Your task to perform on an android device: open app "Messages" Image 0: 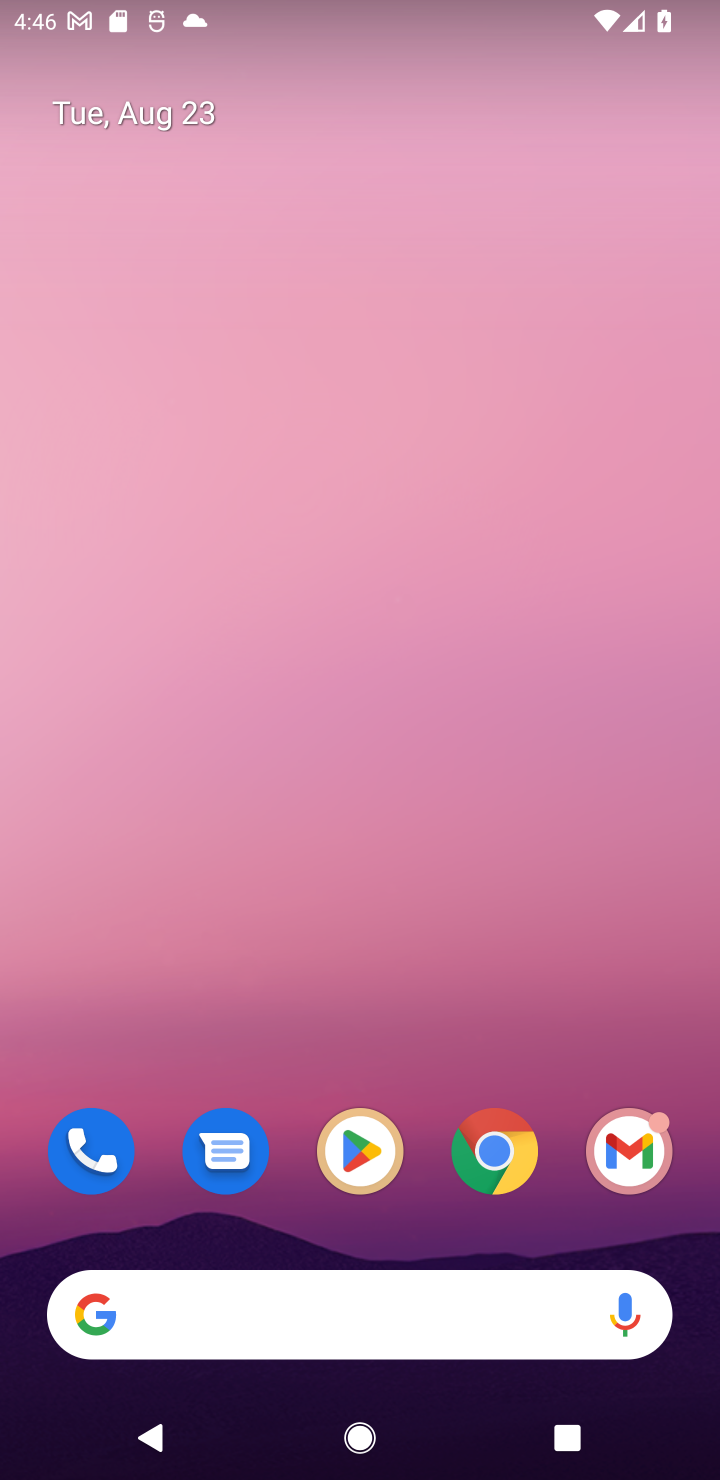
Step 0: click (351, 1138)
Your task to perform on an android device: open app "Messages" Image 1: 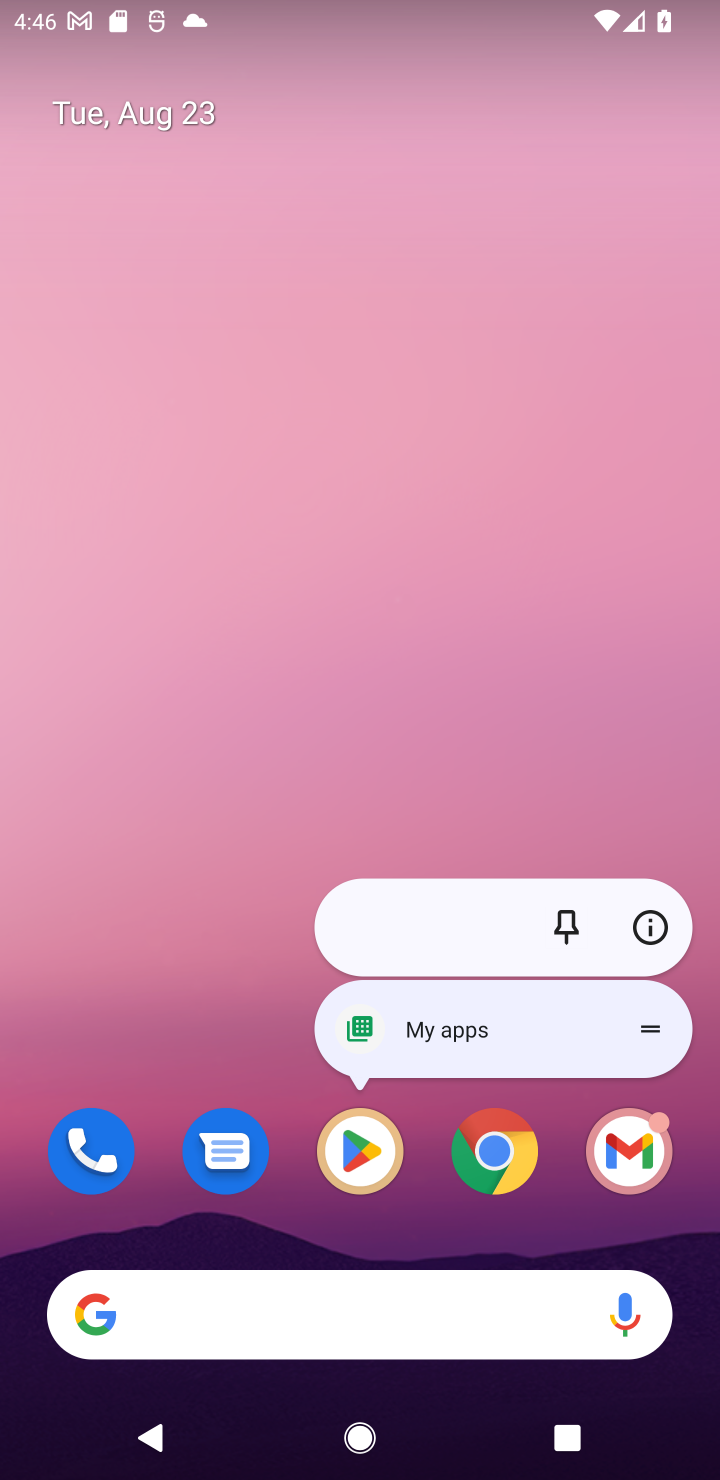
Step 1: click (355, 1142)
Your task to perform on an android device: open app "Messages" Image 2: 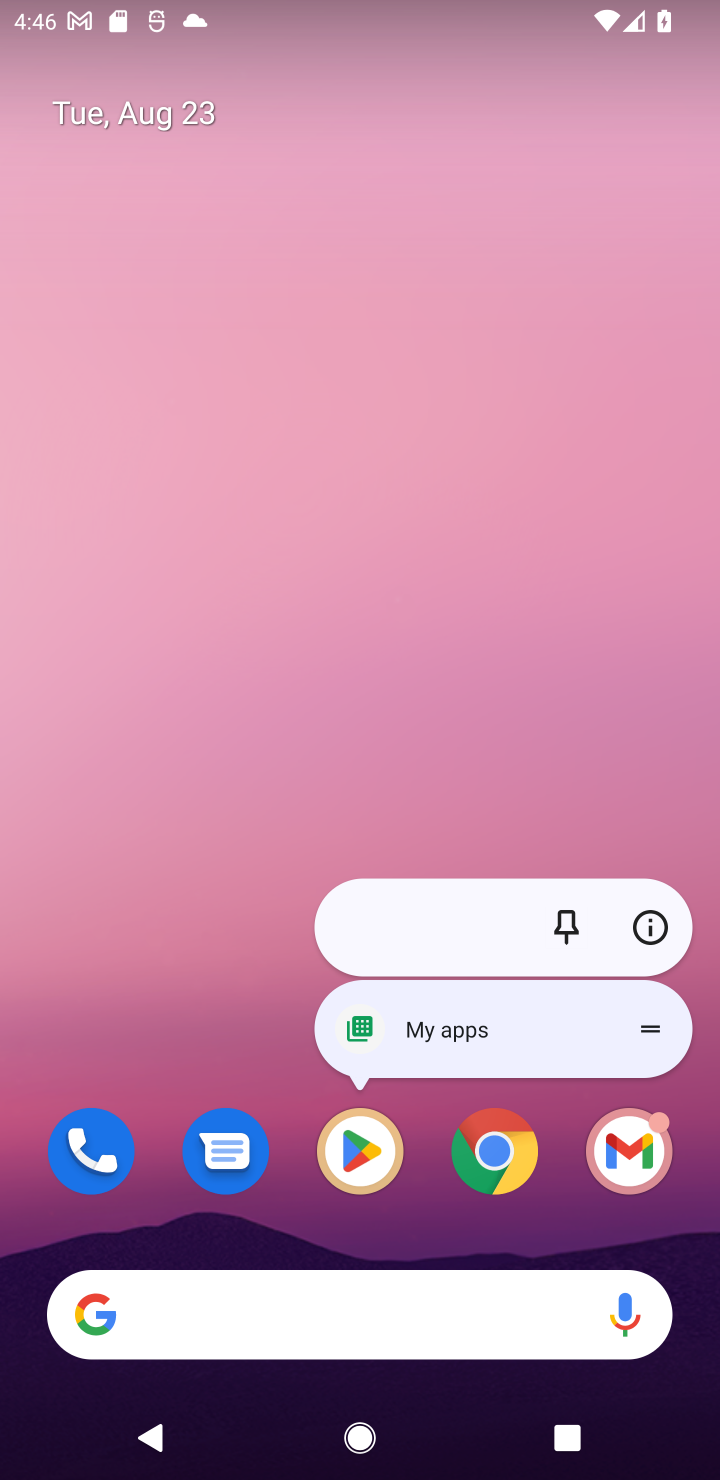
Step 2: click (355, 1146)
Your task to perform on an android device: open app "Messages" Image 3: 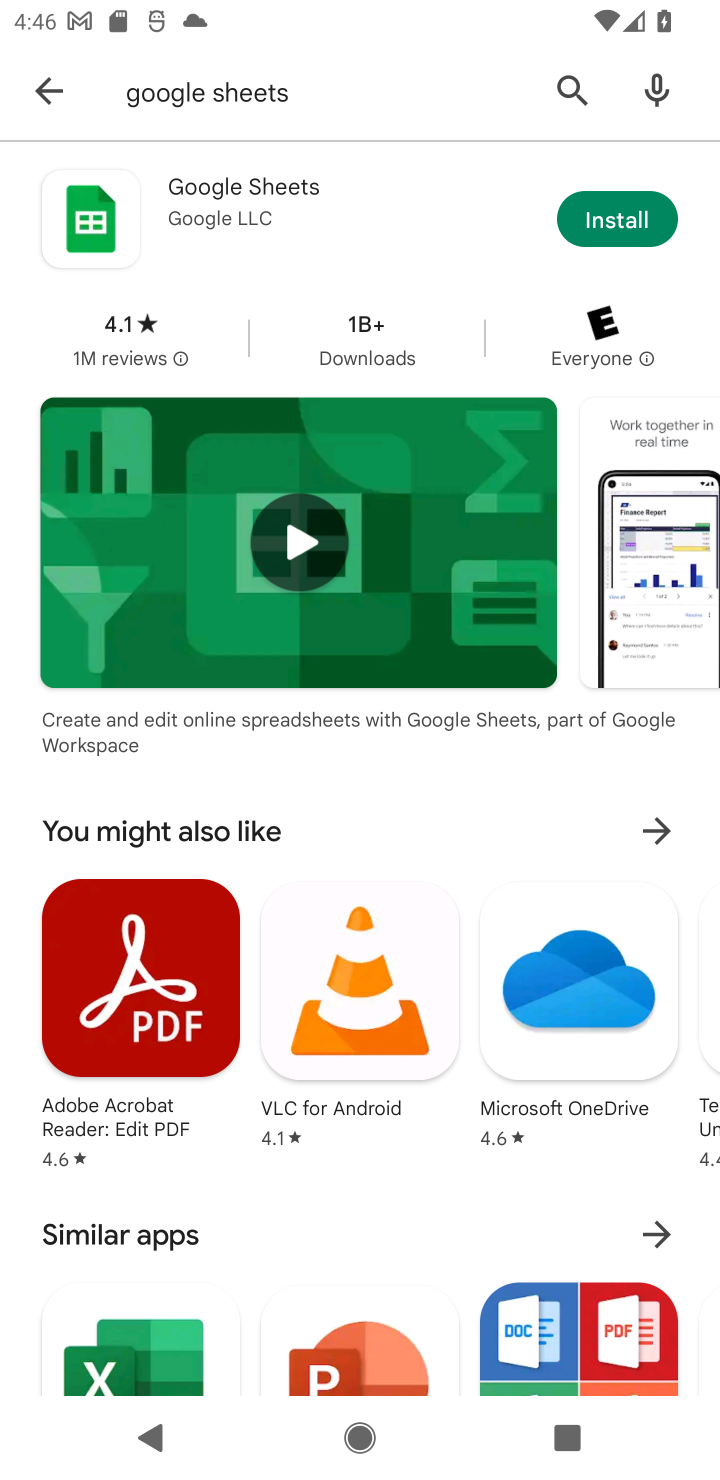
Step 3: click (576, 83)
Your task to perform on an android device: open app "Messages" Image 4: 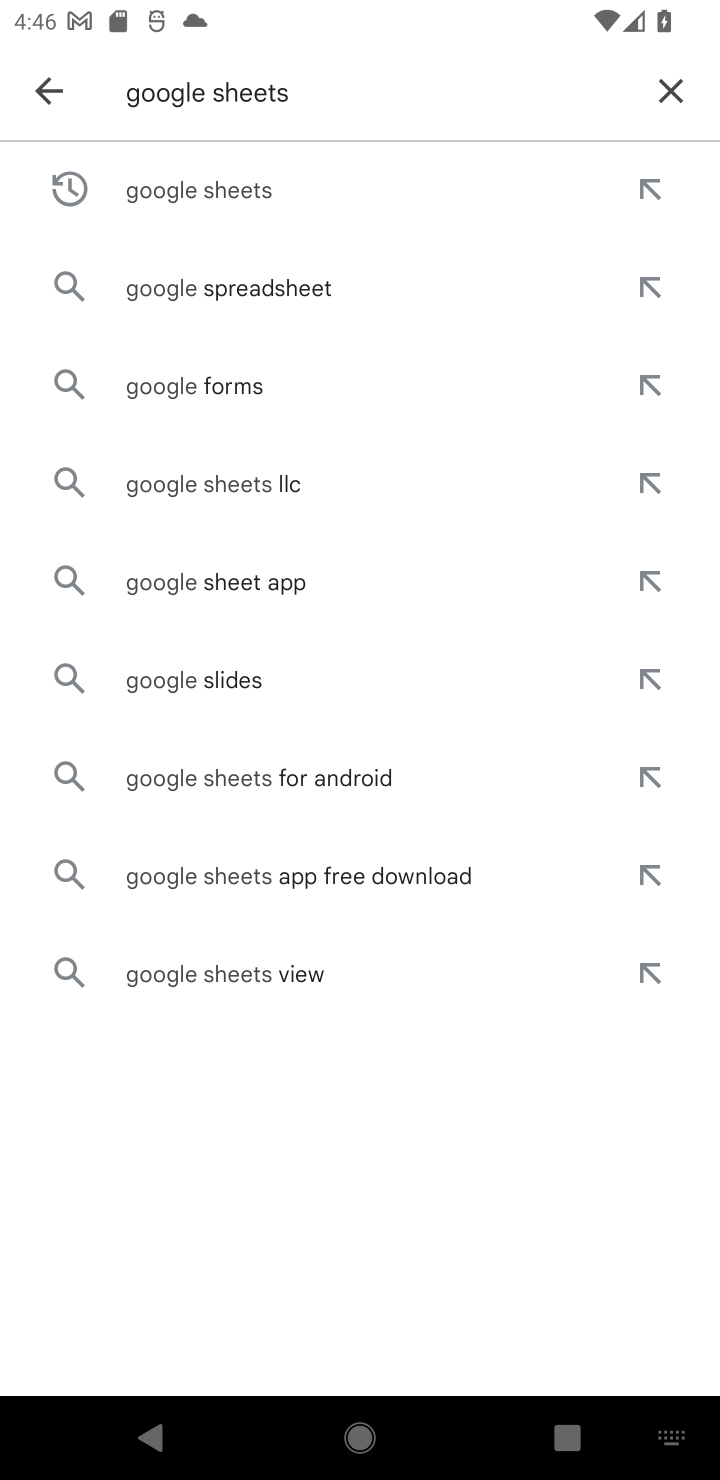
Step 4: click (672, 92)
Your task to perform on an android device: open app "Messages" Image 5: 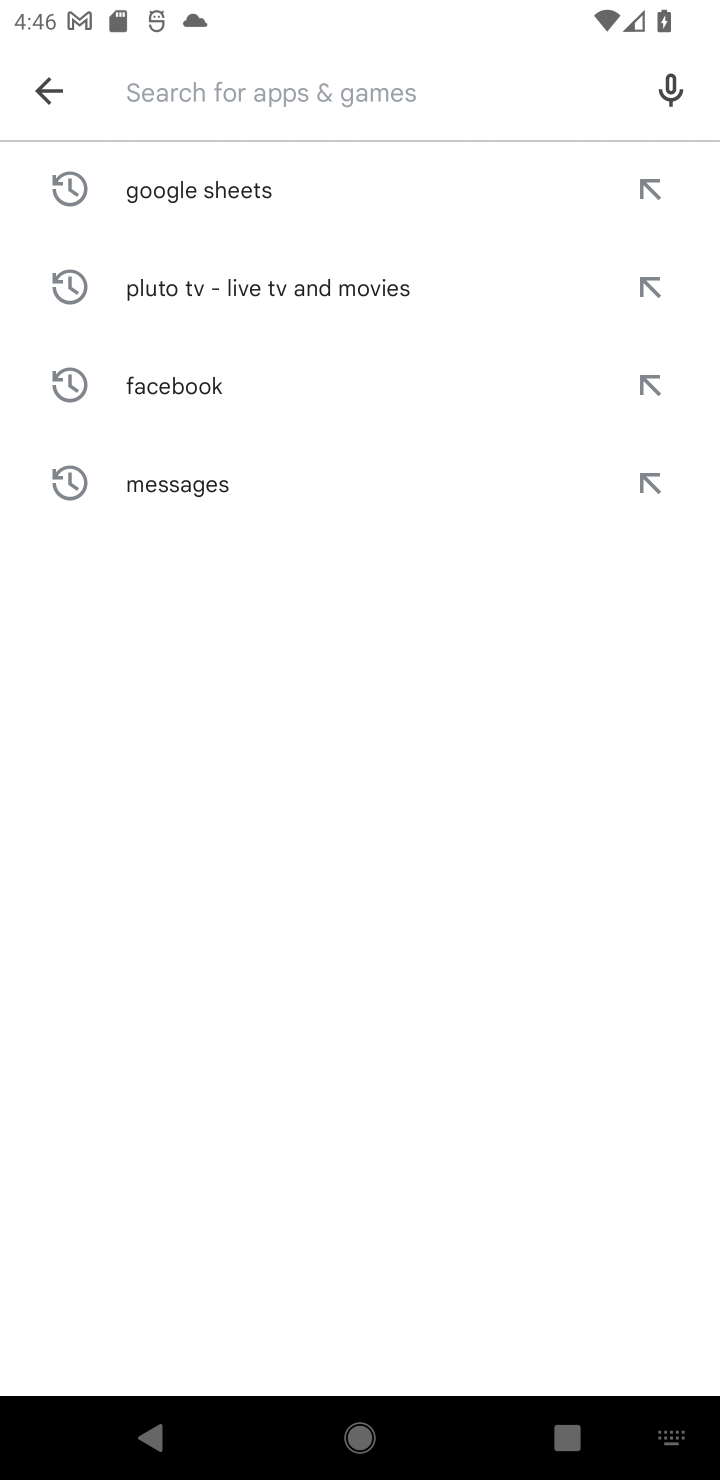
Step 5: type "Messages"
Your task to perform on an android device: open app "Messages" Image 6: 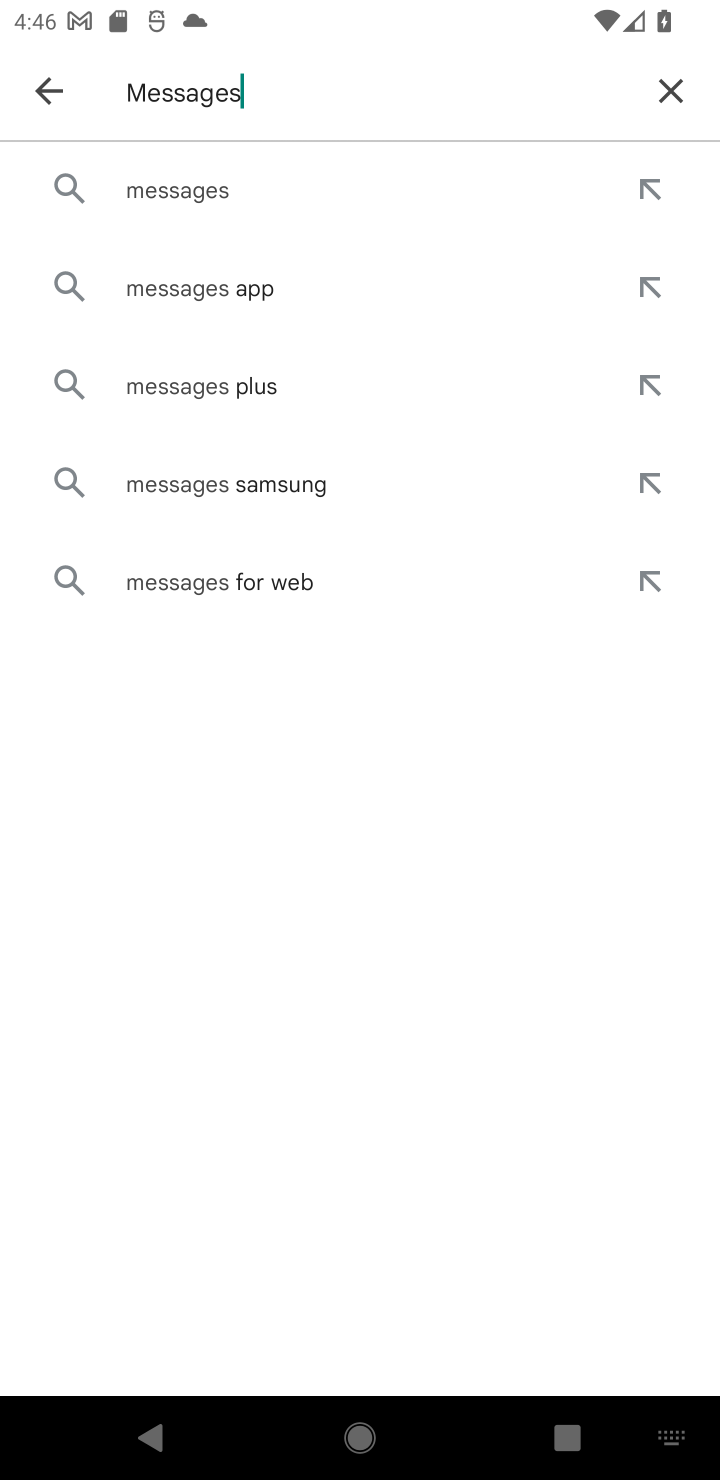
Step 6: click (189, 188)
Your task to perform on an android device: open app "Messages" Image 7: 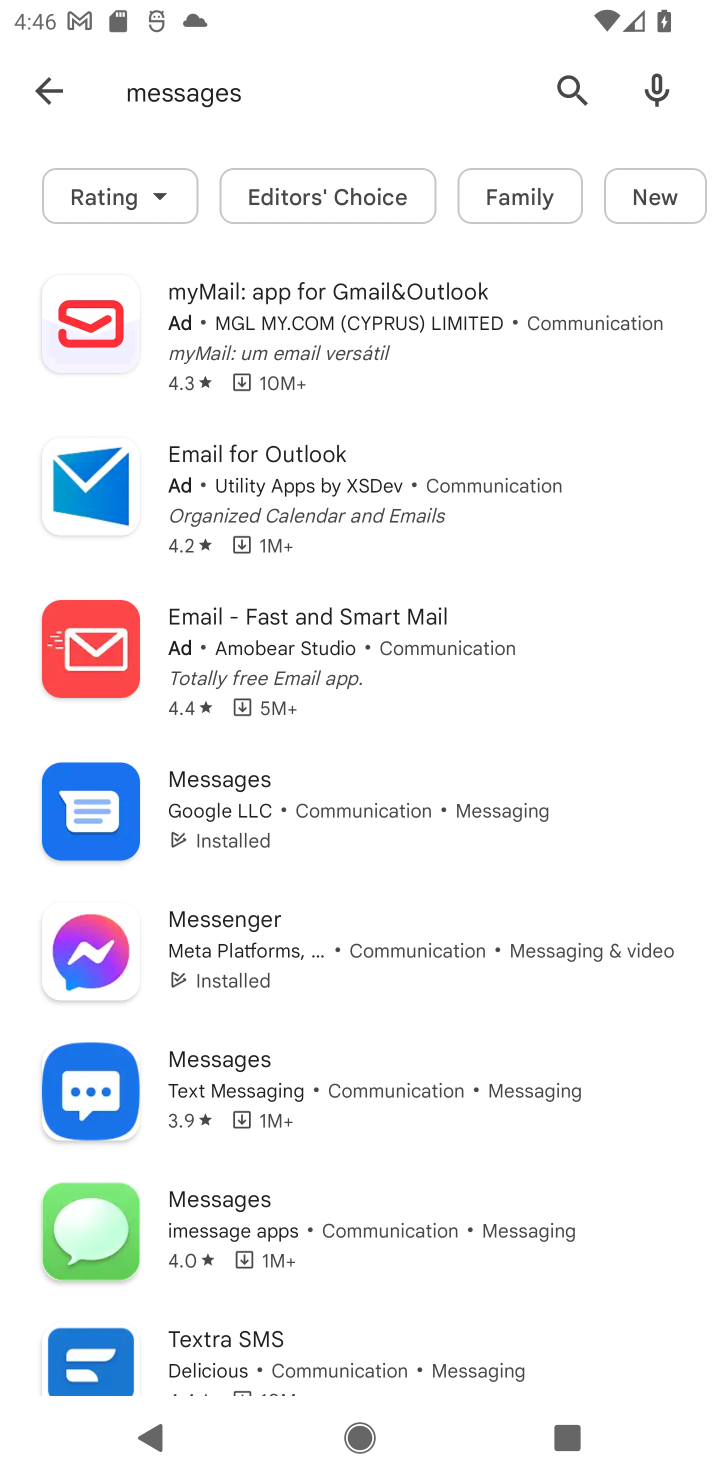
Step 7: click (225, 801)
Your task to perform on an android device: open app "Messages" Image 8: 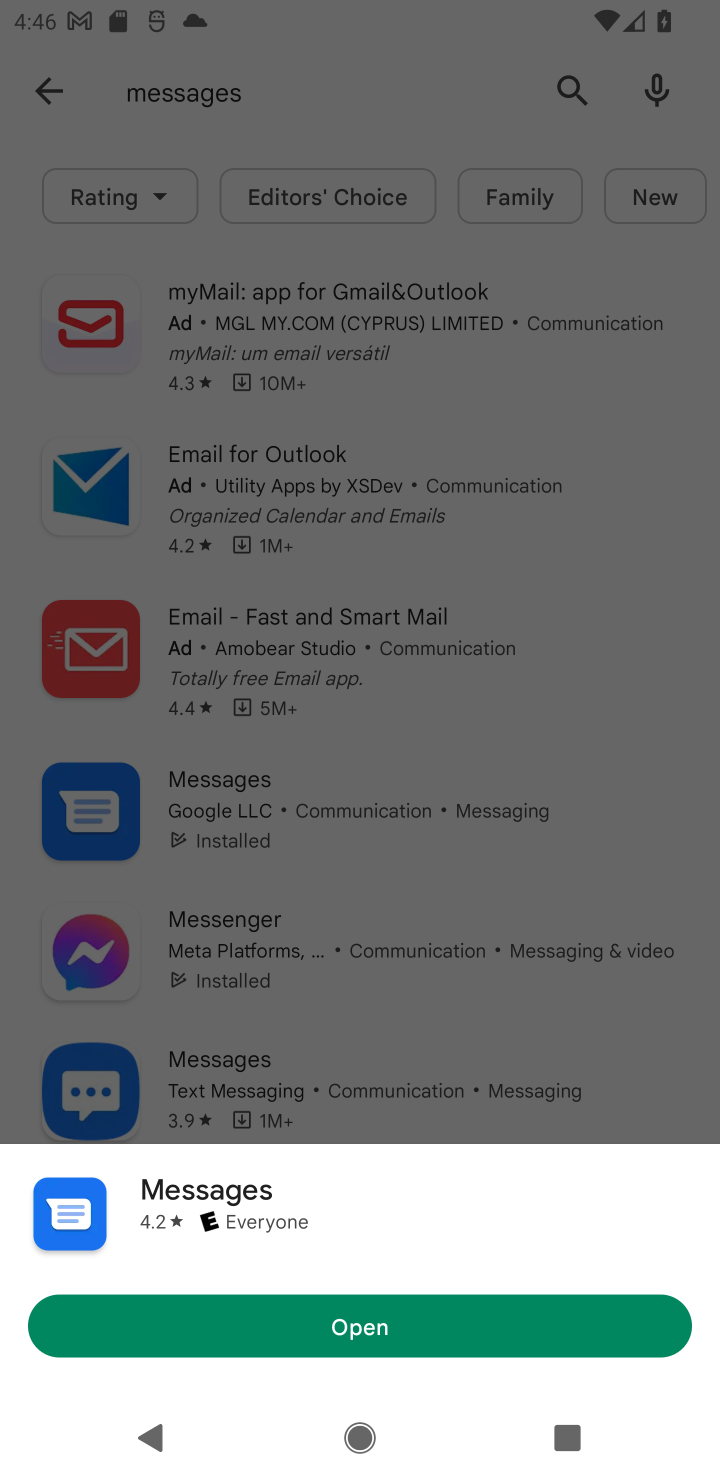
Step 8: click (367, 1322)
Your task to perform on an android device: open app "Messages" Image 9: 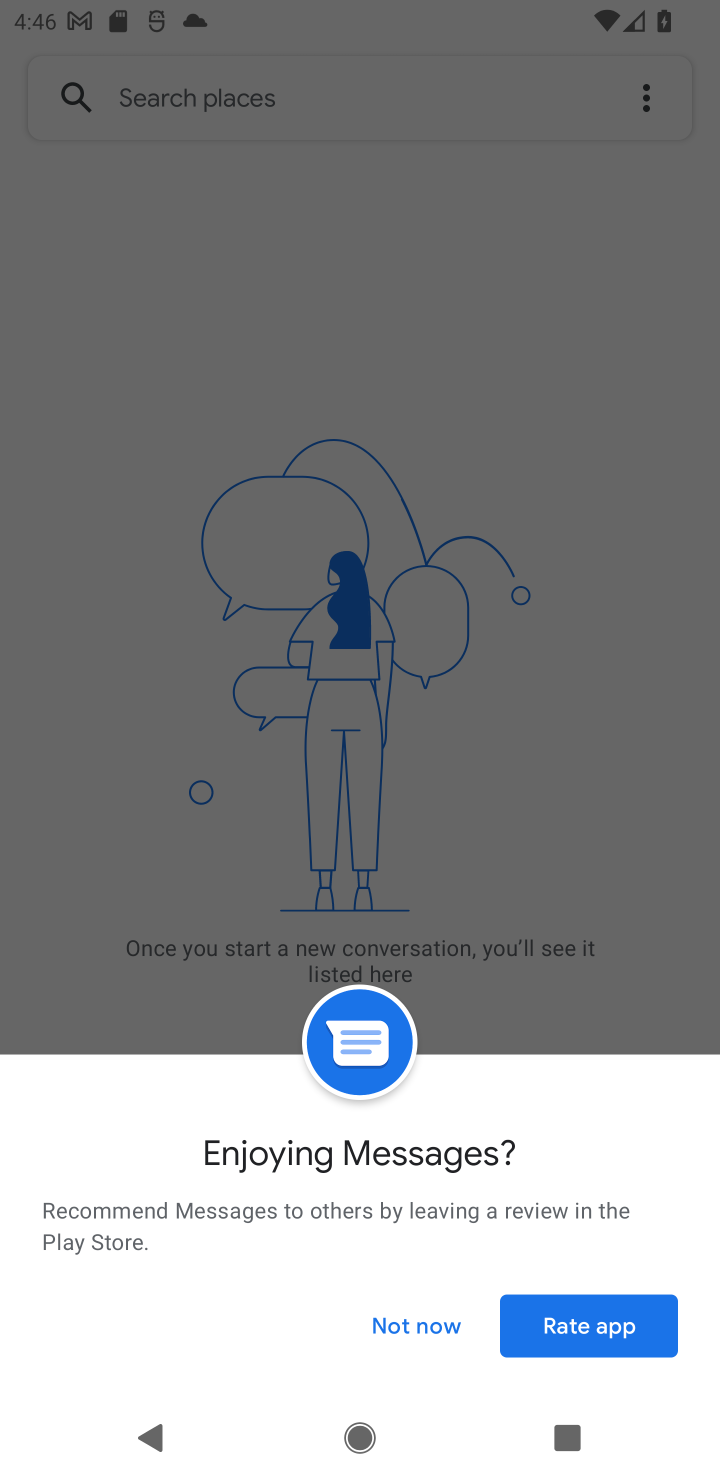
Step 9: task complete